Your task to perform on an android device: change the clock display to show seconds Image 0: 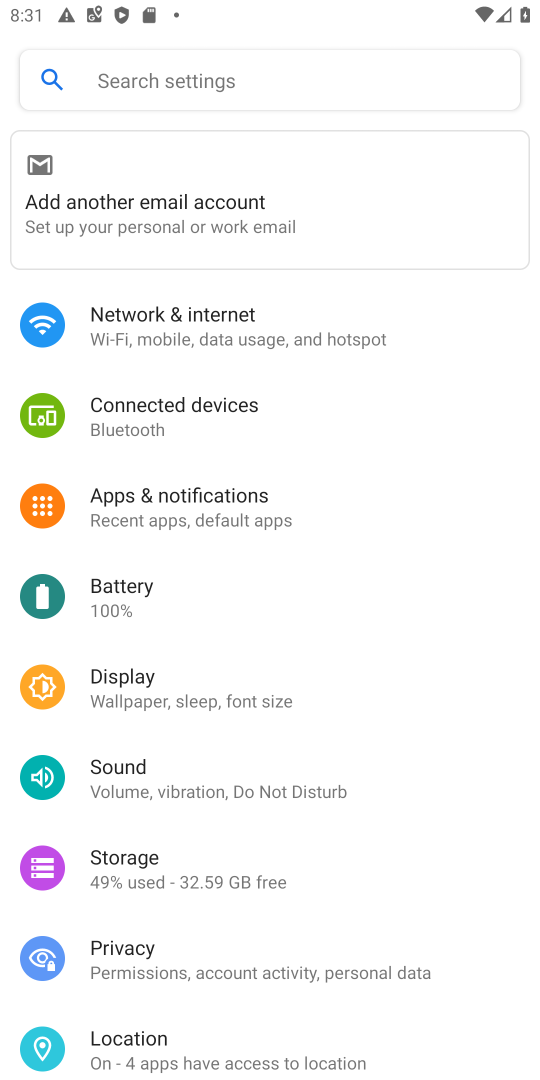
Step 0: press home button
Your task to perform on an android device: change the clock display to show seconds Image 1: 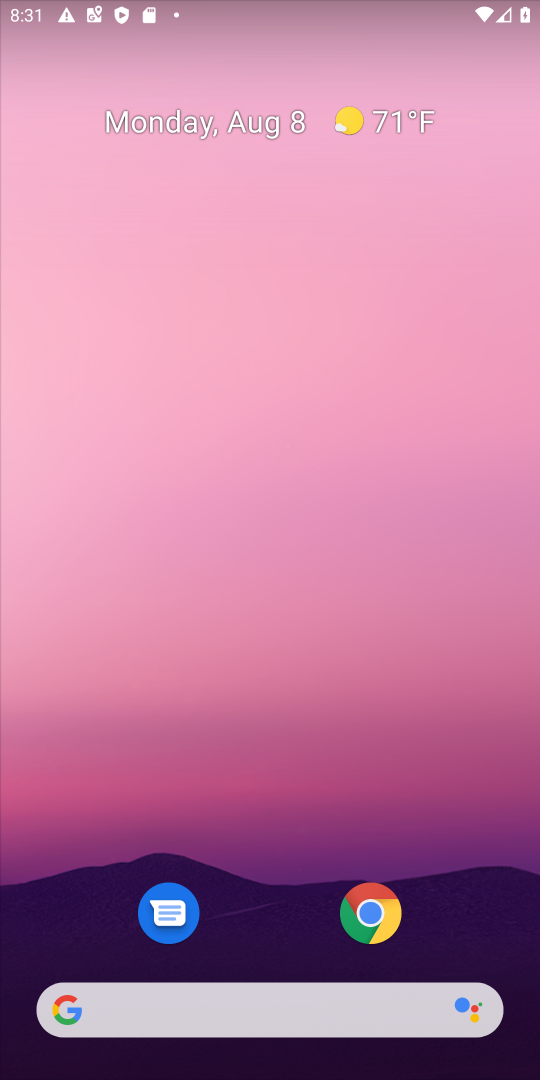
Step 1: drag from (201, 1012) to (443, 437)
Your task to perform on an android device: change the clock display to show seconds Image 2: 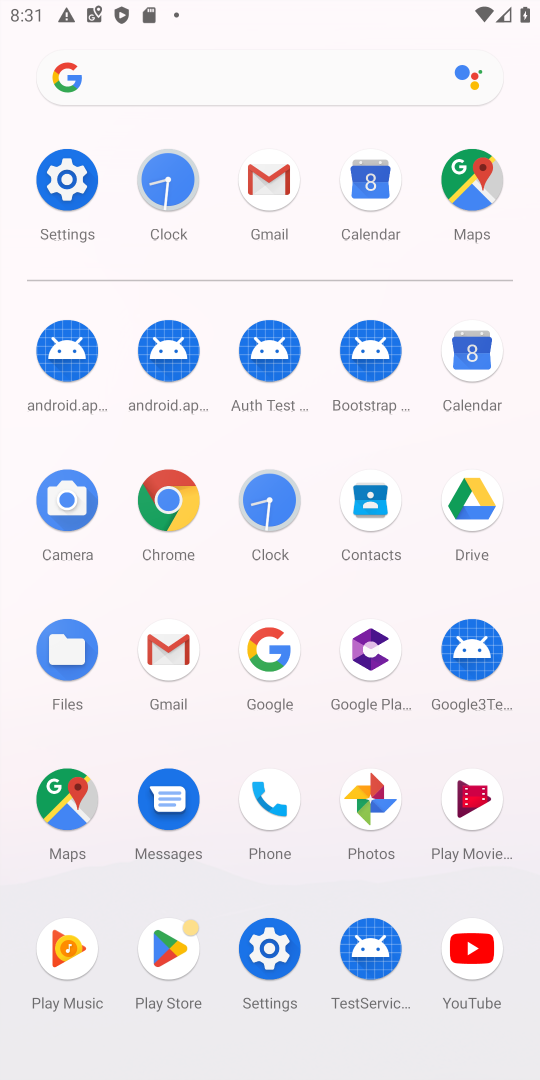
Step 2: click (170, 179)
Your task to perform on an android device: change the clock display to show seconds Image 3: 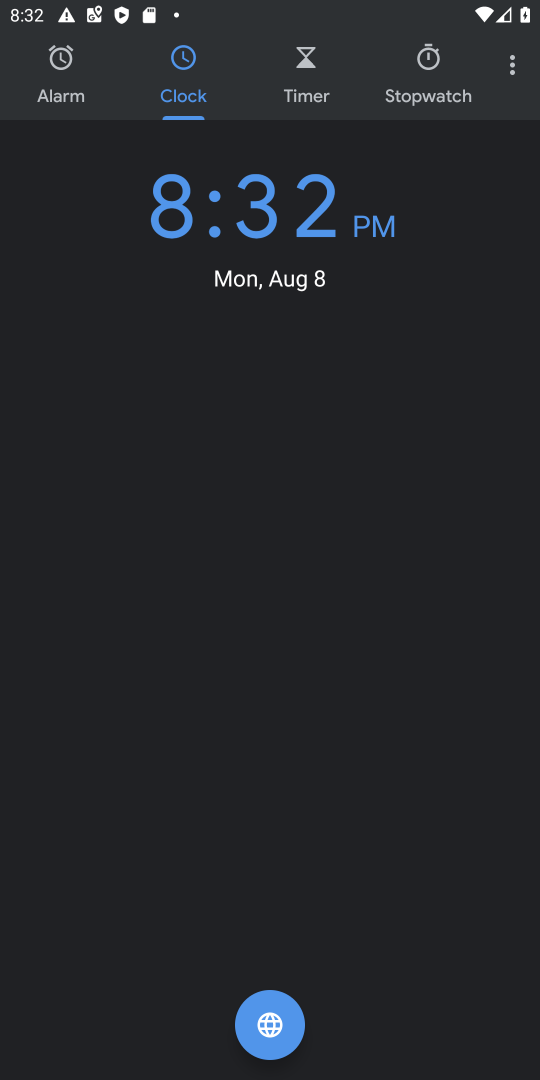
Step 3: click (513, 66)
Your task to perform on an android device: change the clock display to show seconds Image 4: 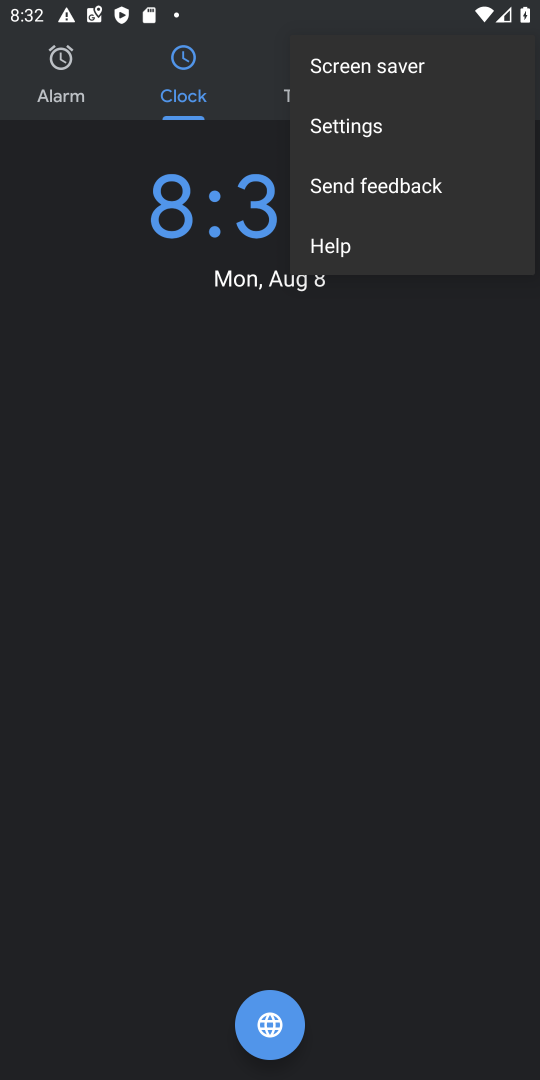
Step 4: click (356, 134)
Your task to perform on an android device: change the clock display to show seconds Image 5: 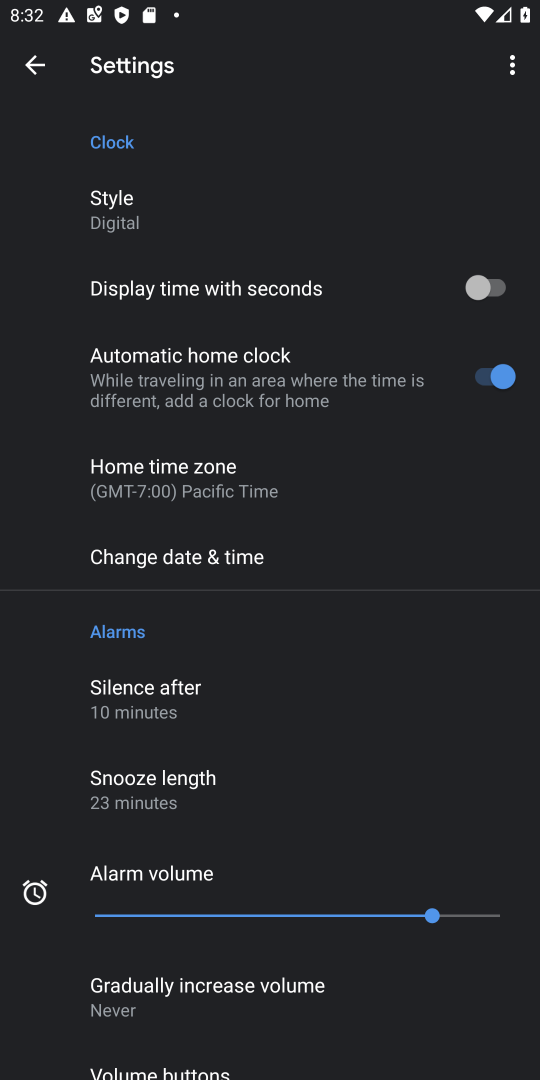
Step 5: click (475, 281)
Your task to perform on an android device: change the clock display to show seconds Image 6: 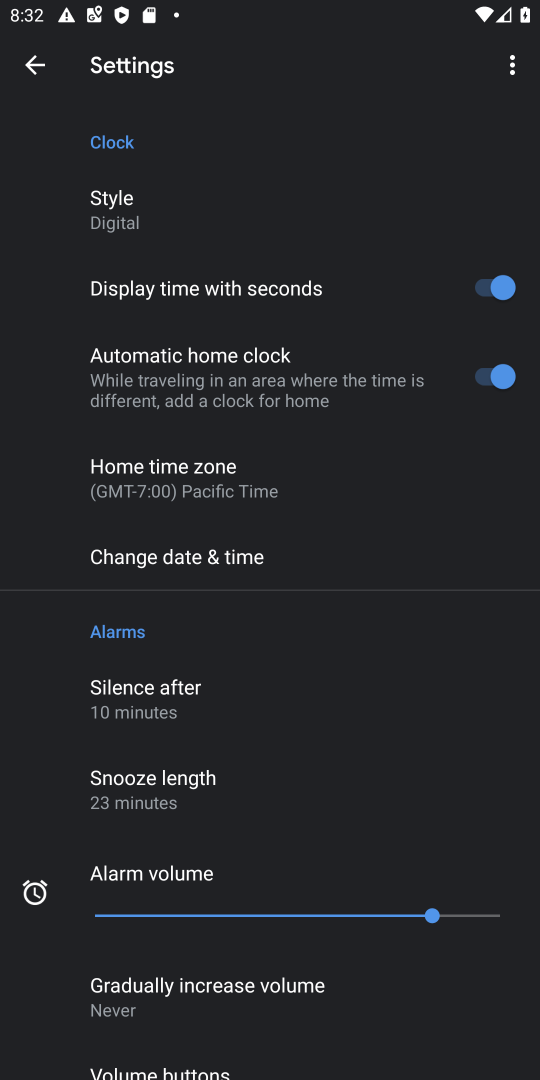
Step 6: task complete